Your task to perform on an android device: What is the capital of Argentina? Image 0: 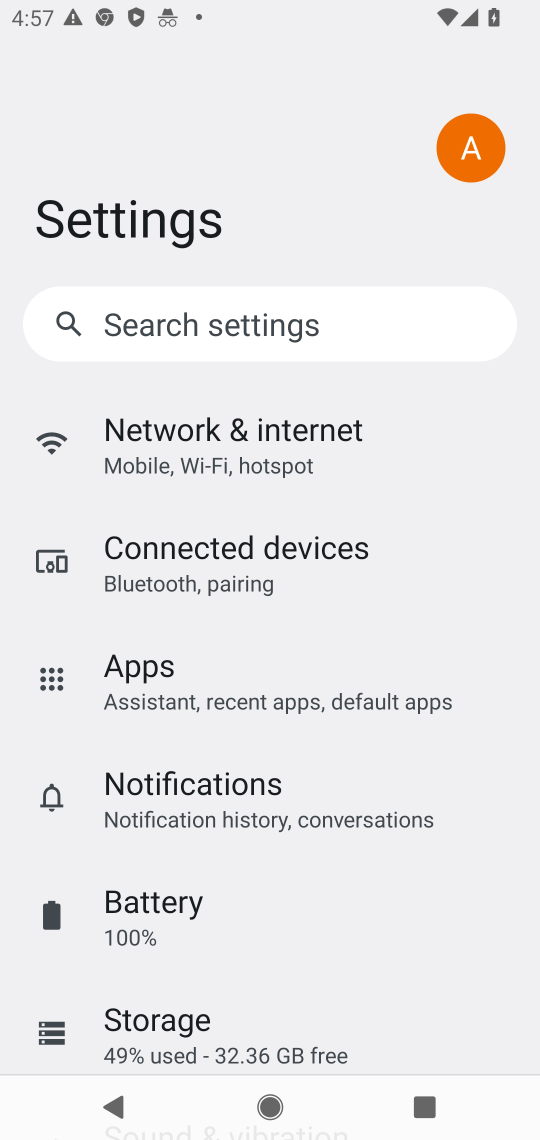
Step 0: press home button
Your task to perform on an android device: What is the capital of Argentina? Image 1: 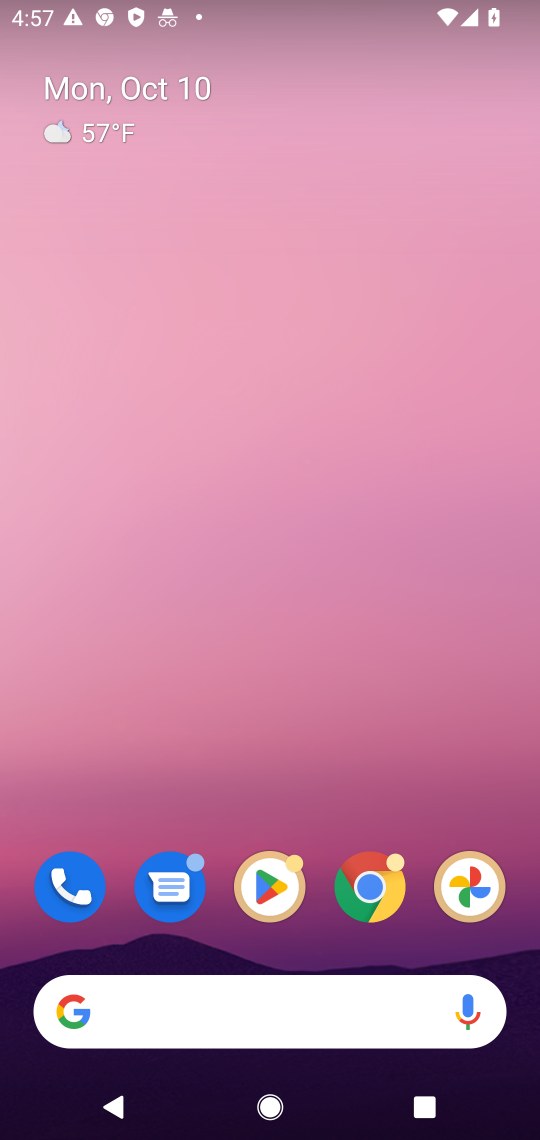
Step 1: click (375, 915)
Your task to perform on an android device: What is the capital of Argentina? Image 2: 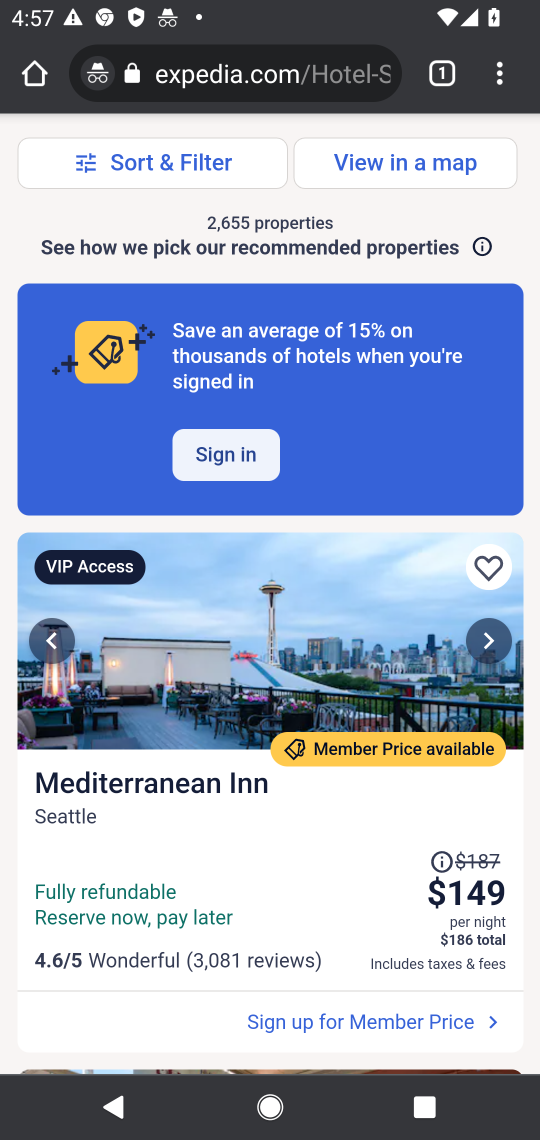
Step 2: click (296, 53)
Your task to perform on an android device: What is the capital of Argentina? Image 3: 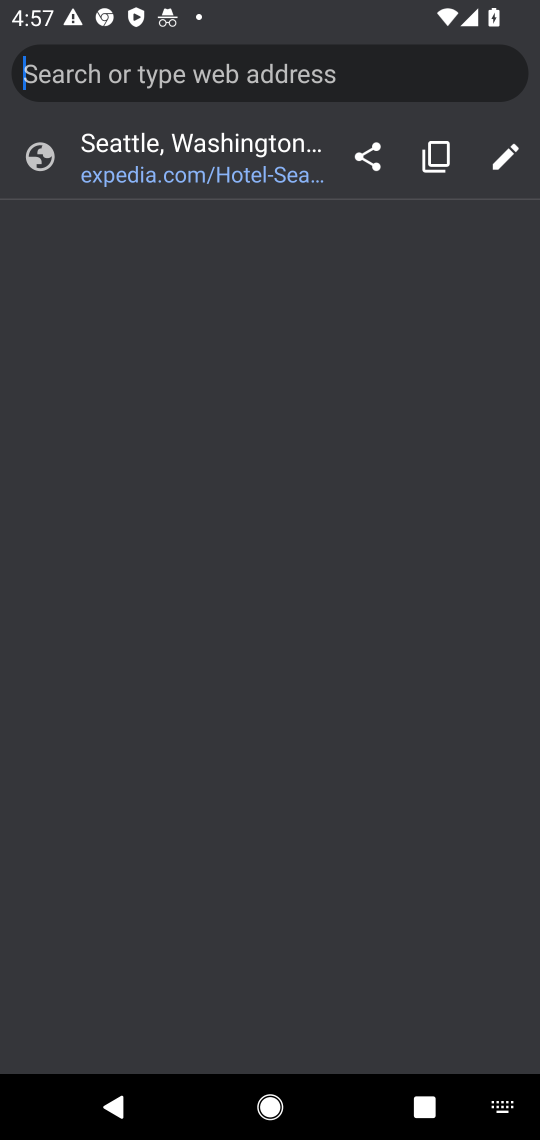
Step 3: type "capital of Argentina ?"
Your task to perform on an android device: What is the capital of Argentina? Image 4: 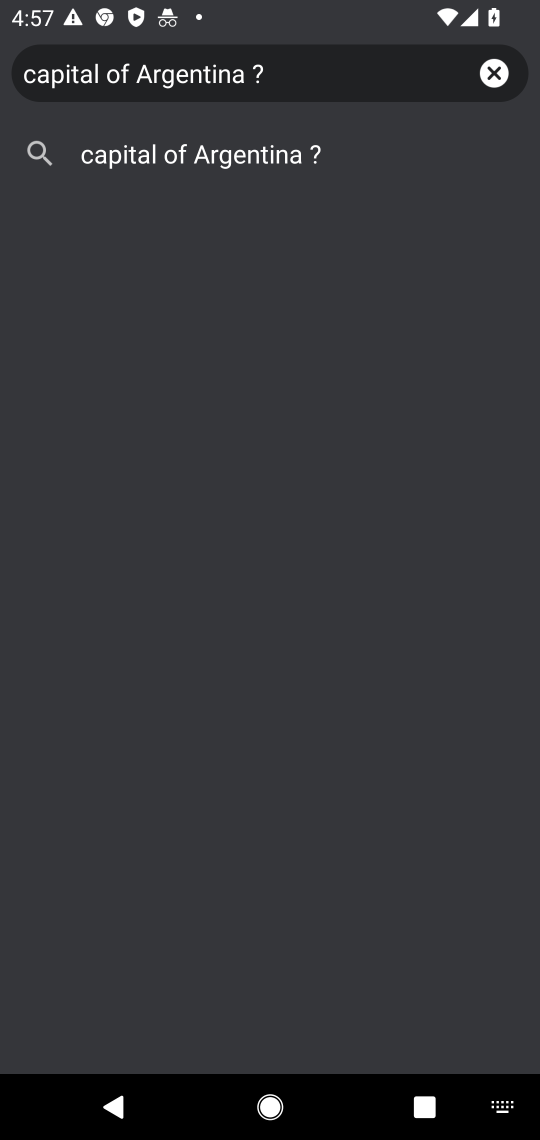
Step 4: click (288, 158)
Your task to perform on an android device: What is the capital of Argentina? Image 5: 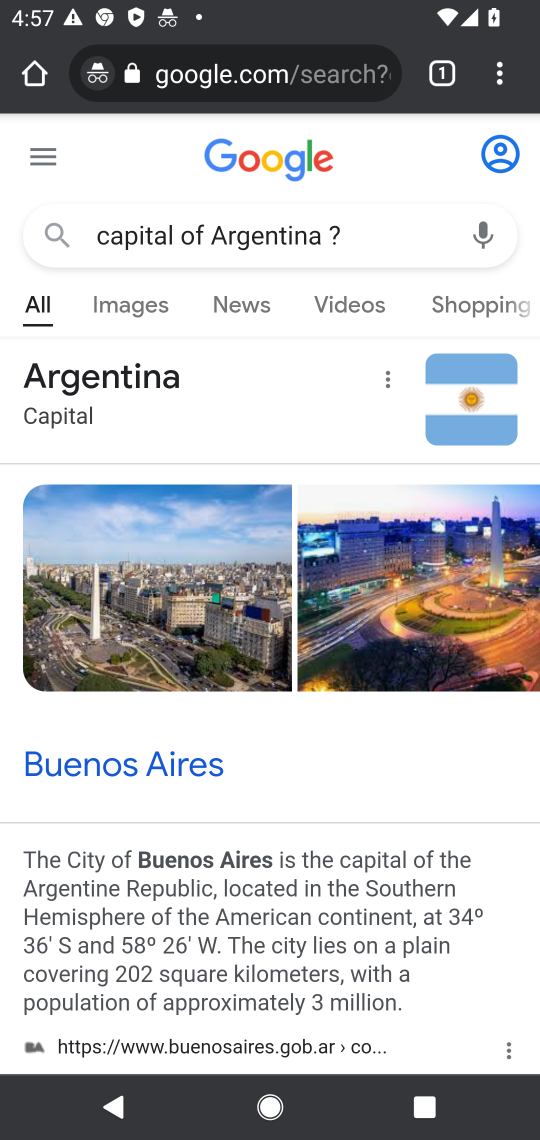
Step 5: task complete